Your task to perform on an android device: Go to calendar. Show me events next week Image 0: 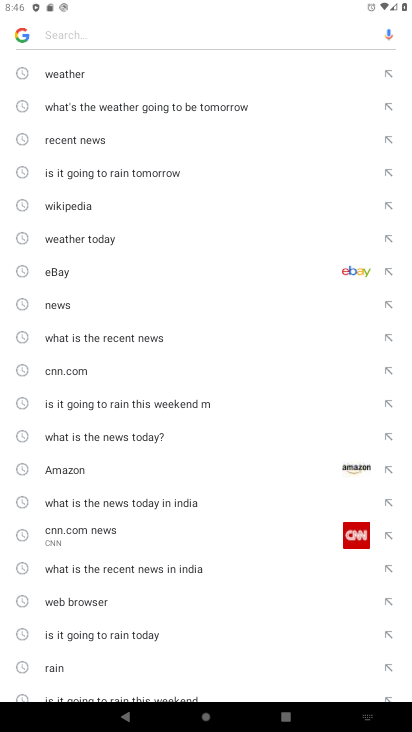
Step 0: press home button
Your task to perform on an android device: Go to calendar. Show me events next week Image 1: 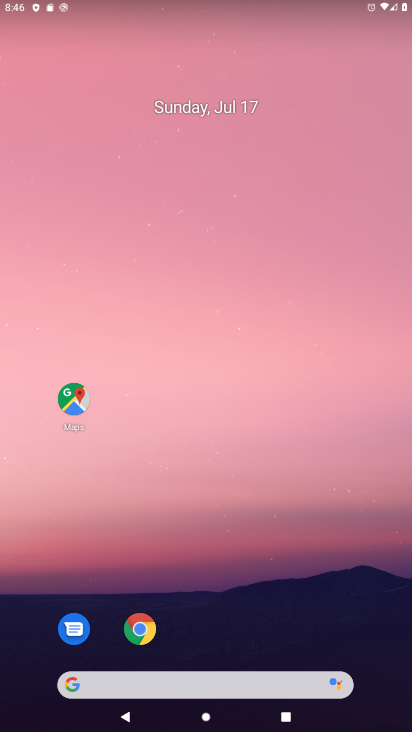
Step 1: drag from (258, 611) to (282, 51)
Your task to perform on an android device: Go to calendar. Show me events next week Image 2: 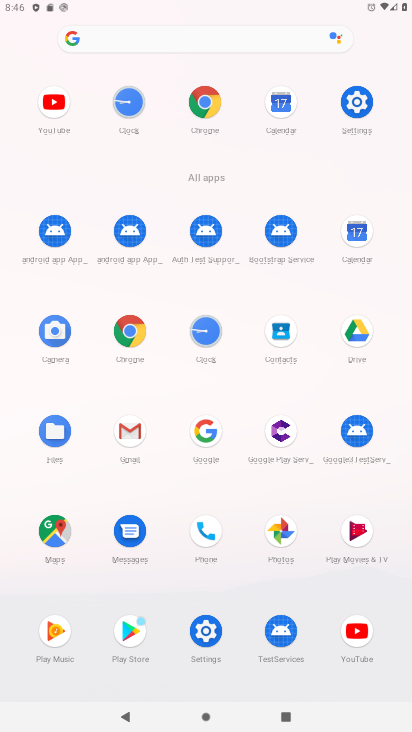
Step 2: click (287, 99)
Your task to perform on an android device: Go to calendar. Show me events next week Image 3: 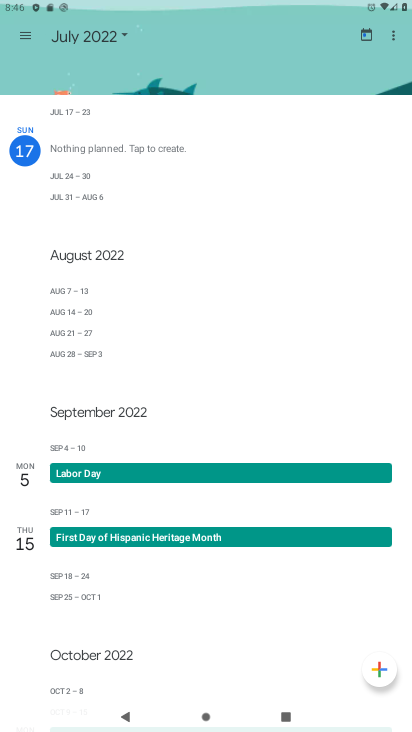
Step 3: click (92, 32)
Your task to perform on an android device: Go to calendar. Show me events next week Image 4: 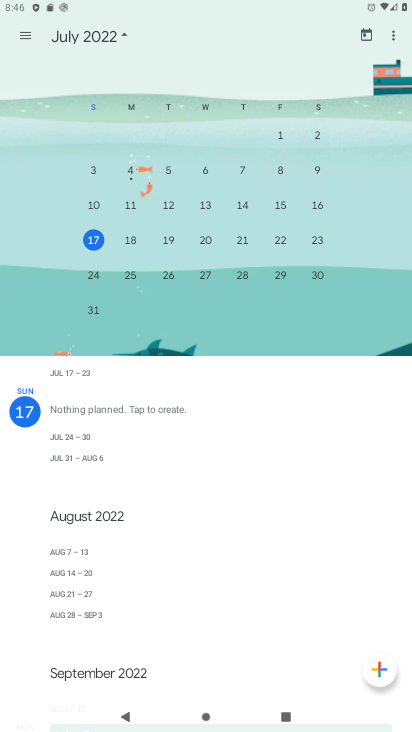
Step 4: click (92, 263)
Your task to perform on an android device: Go to calendar. Show me events next week Image 5: 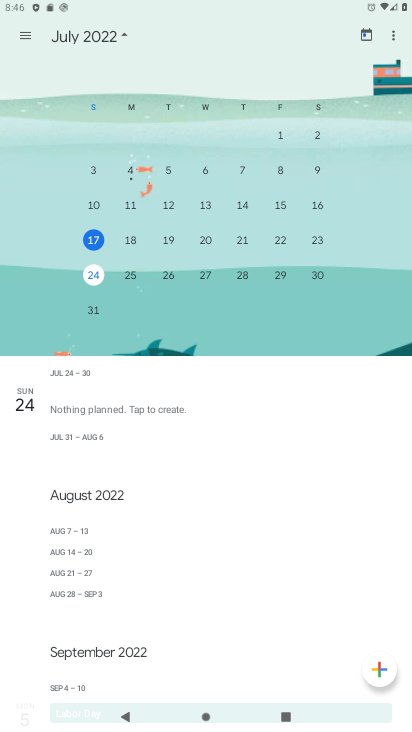
Step 5: click (129, 263)
Your task to perform on an android device: Go to calendar. Show me events next week Image 6: 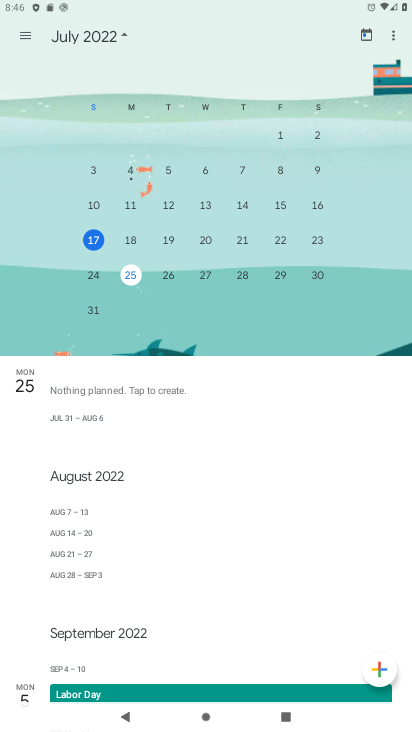
Step 6: click (175, 271)
Your task to perform on an android device: Go to calendar. Show me events next week Image 7: 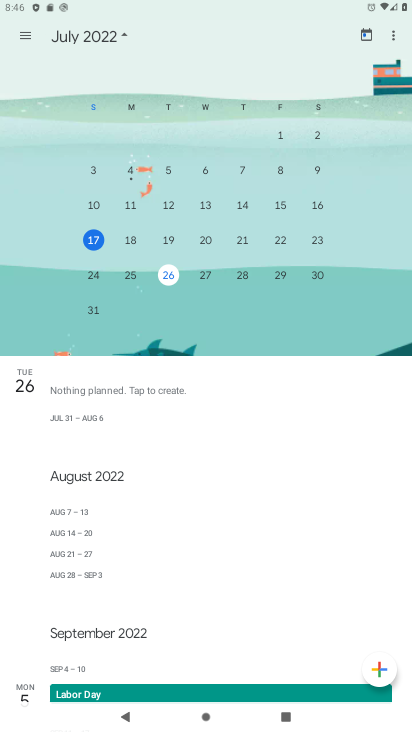
Step 7: click (220, 283)
Your task to perform on an android device: Go to calendar. Show me events next week Image 8: 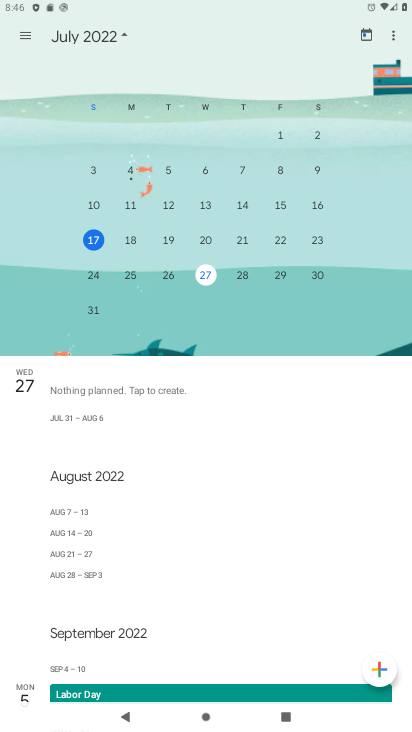
Step 8: click (253, 283)
Your task to perform on an android device: Go to calendar. Show me events next week Image 9: 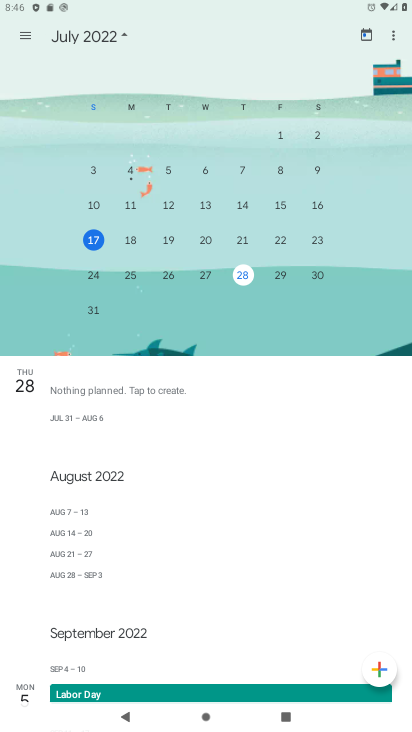
Step 9: click (289, 277)
Your task to perform on an android device: Go to calendar. Show me events next week Image 10: 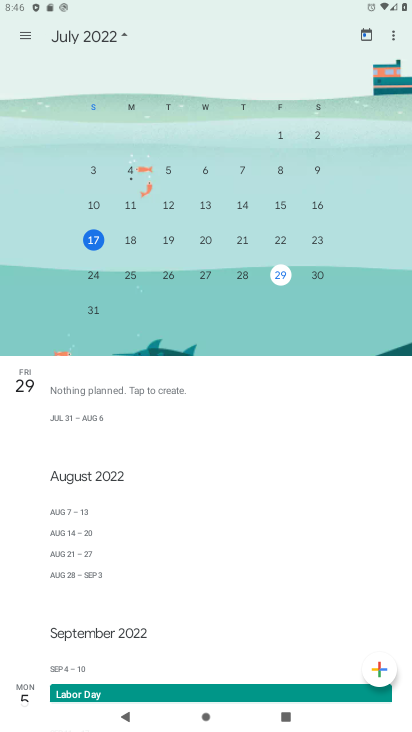
Step 10: click (331, 275)
Your task to perform on an android device: Go to calendar. Show me events next week Image 11: 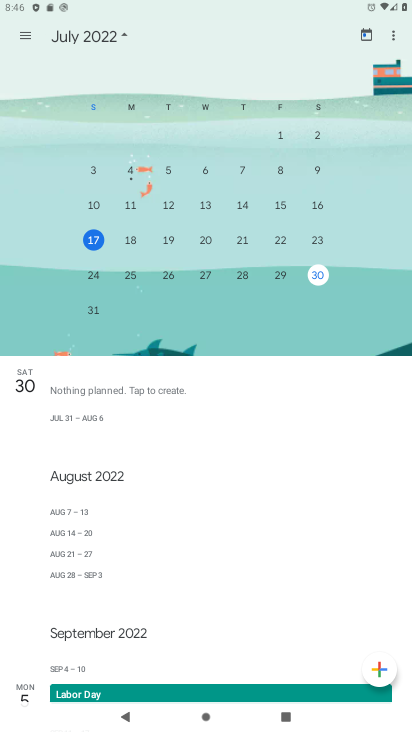
Step 11: task complete